Your task to perform on an android device: Go to internet settings Image 0: 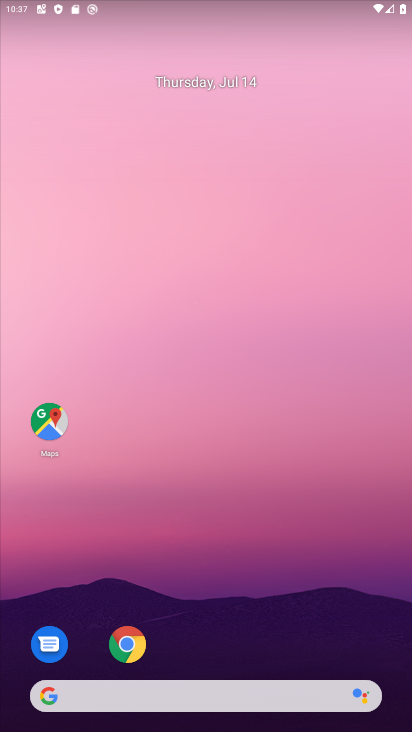
Step 0: click (210, 483)
Your task to perform on an android device: Go to internet settings Image 1: 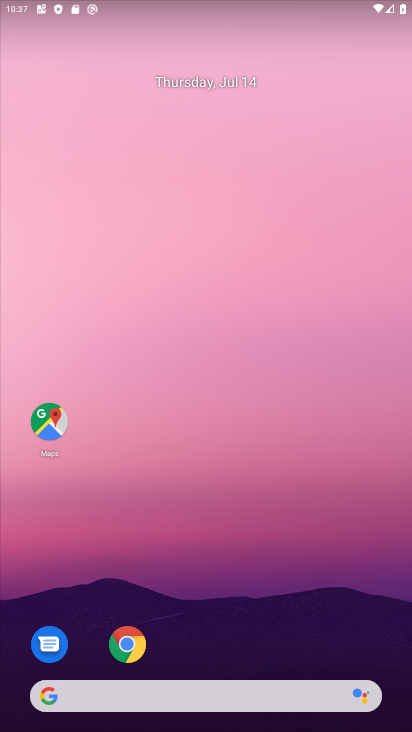
Step 1: drag from (197, 695) to (240, 121)
Your task to perform on an android device: Go to internet settings Image 2: 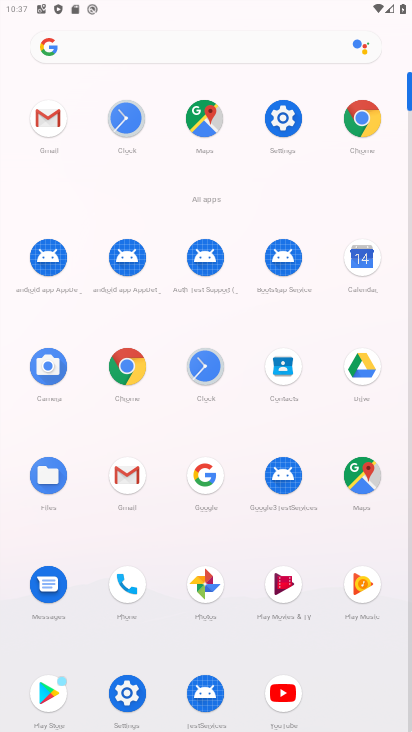
Step 2: click (282, 128)
Your task to perform on an android device: Go to internet settings Image 3: 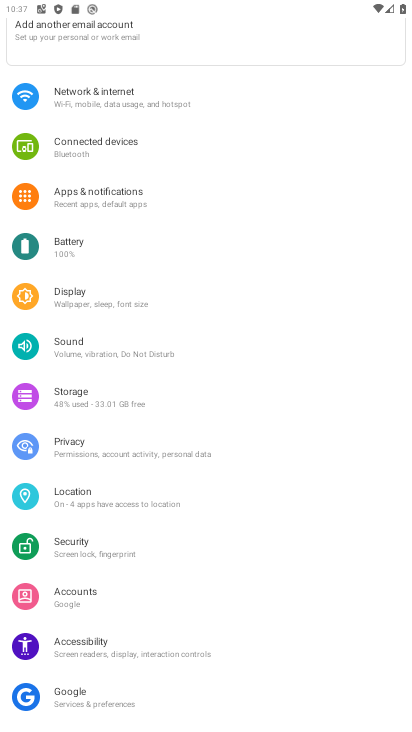
Step 3: click (121, 93)
Your task to perform on an android device: Go to internet settings Image 4: 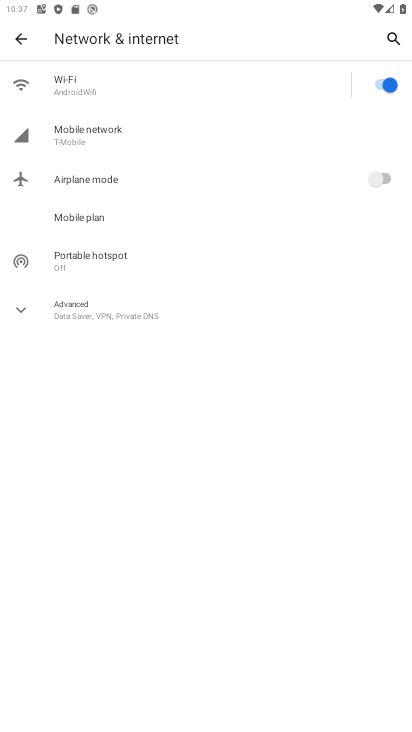
Step 4: task complete